Your task to perform on an android device: all mails in gmail Image 0: 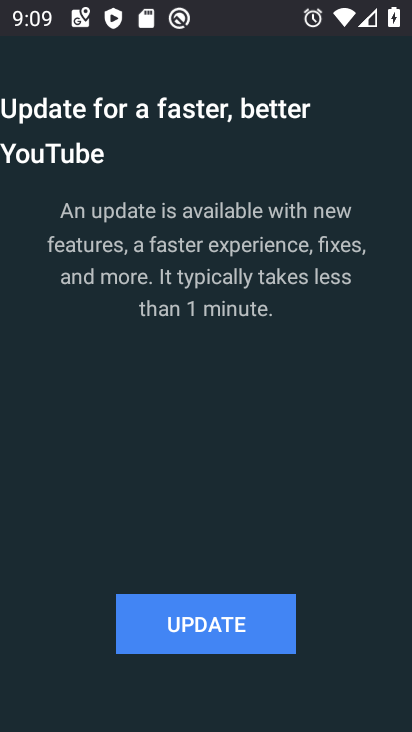
Step 0: click (388, 355)
Your task to perform on an android device: all mails in gmail Image 1: 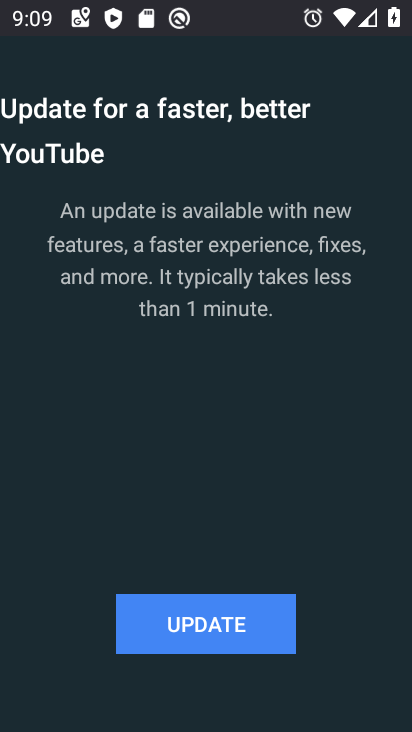
Step 1: press back button
Your task to perform on an android device: all mails in gmail Image 2: 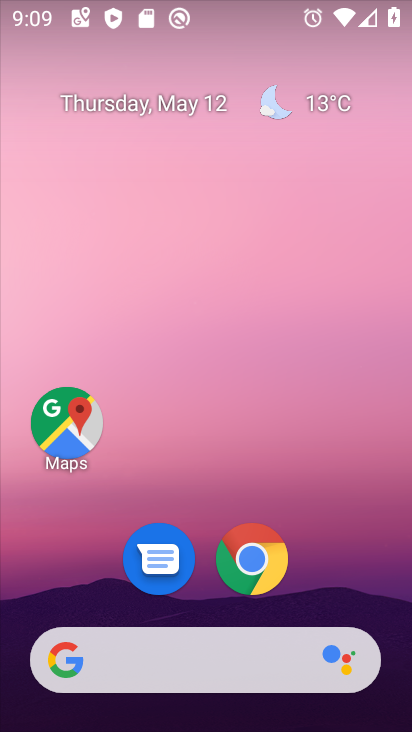
Step 2: drag from (212, 589) to (309, 5)
Your task to perform on an android device: all mails in gmail Image 3: 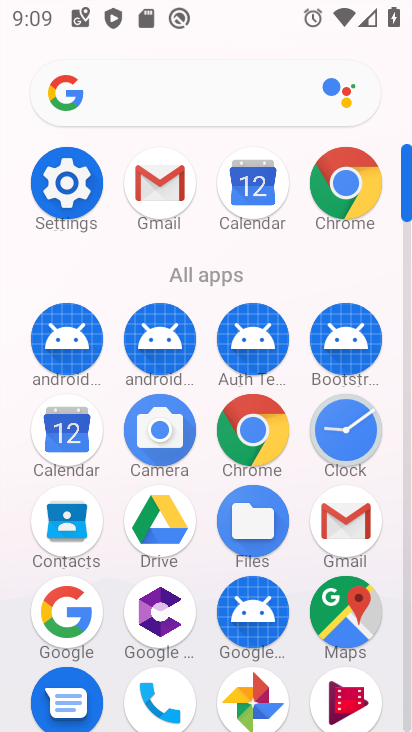
Step 3: click (356, 511)
Your task to perform on an android device: all mails in gmail Image 4: 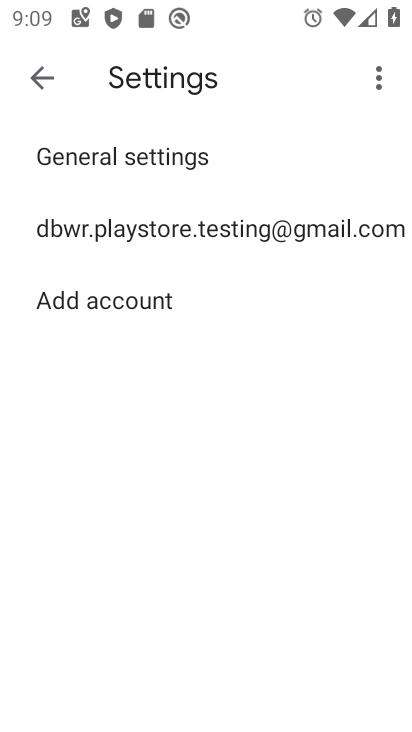
Step 4: click (39, 103)
Your task to perform on an android device: all mails in gmail Image 5: 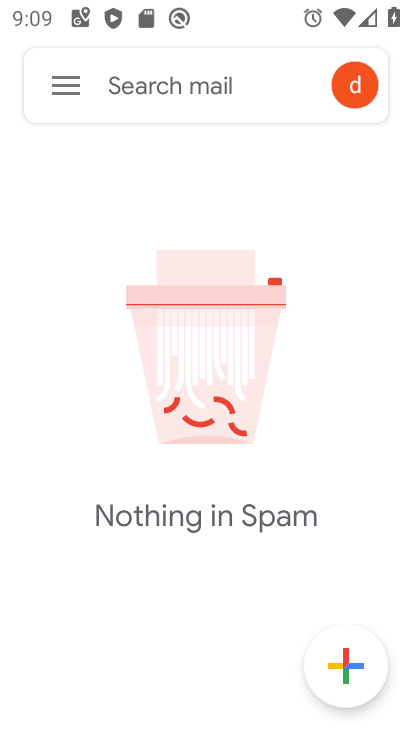
Step 5: click (76, 81)
Your task to perform on an android device: all mails in gmail Image 6: 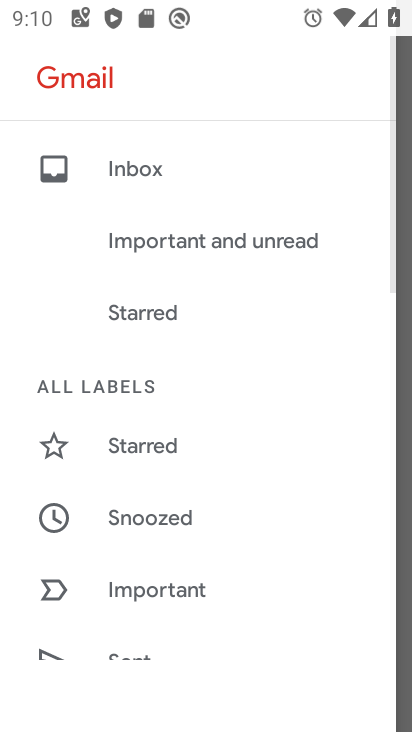
Step 6: drag from (215, 515) to (304, 195)
Your task to perform on an android device: all mails in gmail Image 7: 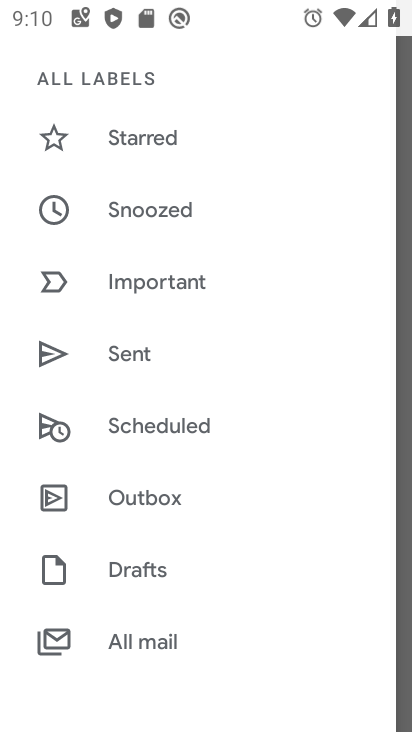
Step 7: click (196, 635)
Your task to perform on an android device: all mails in gmail Image 8: 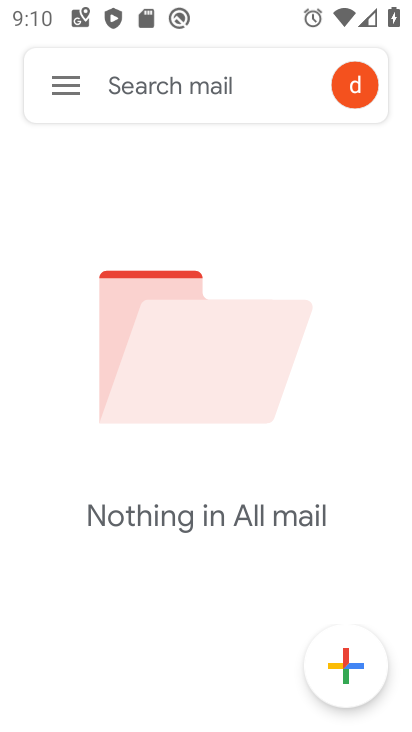
Step 8: task complete